Your task to perform on an android device: turn on bluetooth scan Image 0: 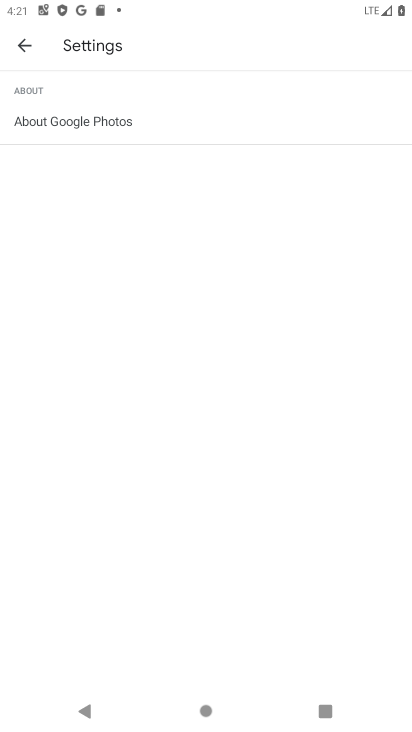
Step 0: press home button
Your task to perform on an android device: turn on bluetooth scan Image 1: 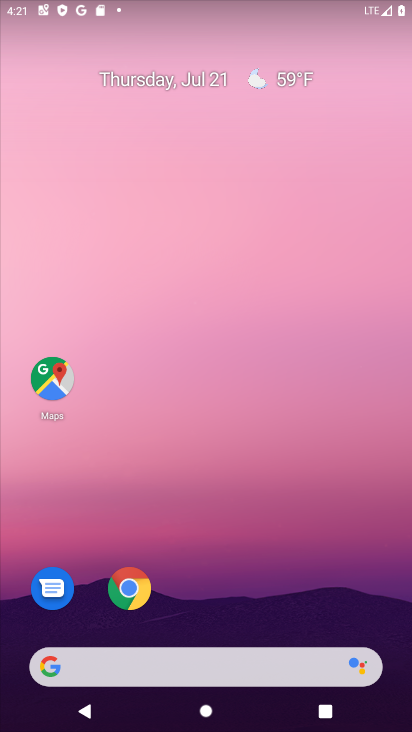
Step 1: drag from (240, 710) to (248, 164)
Your task to perform on an android device: turn on bluetooth scan Image 2: 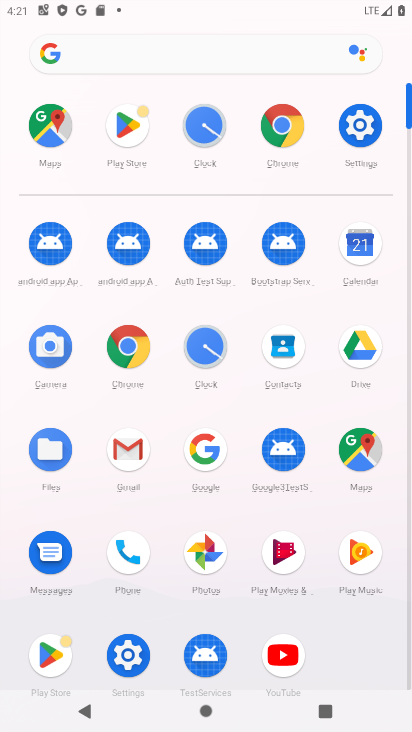
Step 2: click (126, 657)
Your task to perform on an android device: turn on bluetooth scan Image 3: 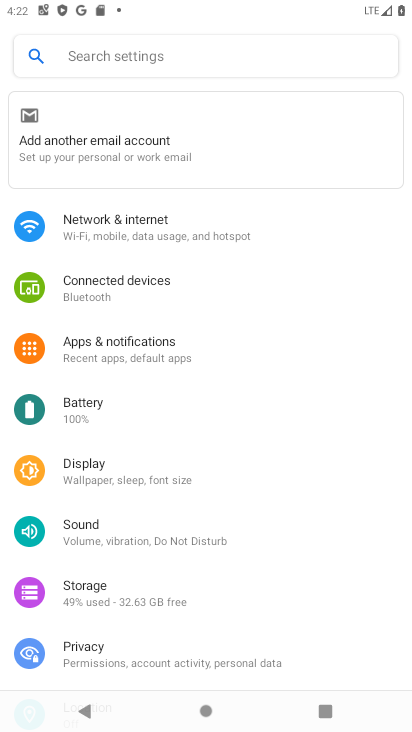
Step 3: drag from (101, 641) to (103, 316)
Your task to perform on an android device: turn on bluetooth scan Image 4: 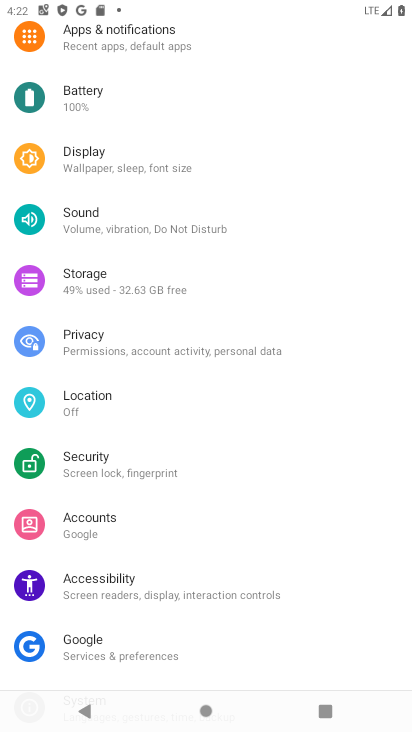
Step 4: click (95, 391)
Your task to perform on an android device: turn on bluetooth scan Image 5: 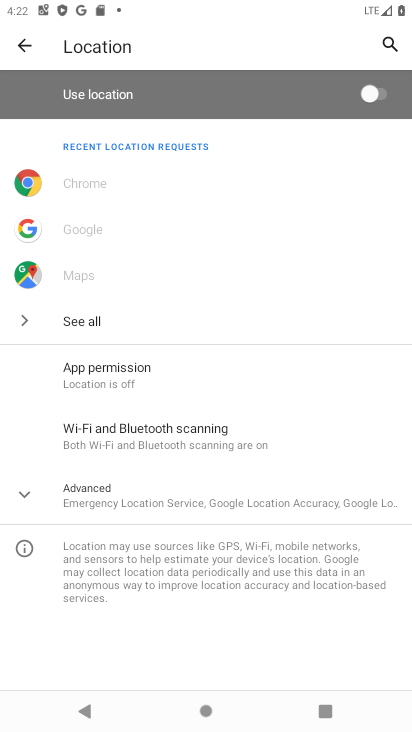
Step 5: click (124, 438)
Your task to perform on an android device: turn on bluetooth scan Image 6: 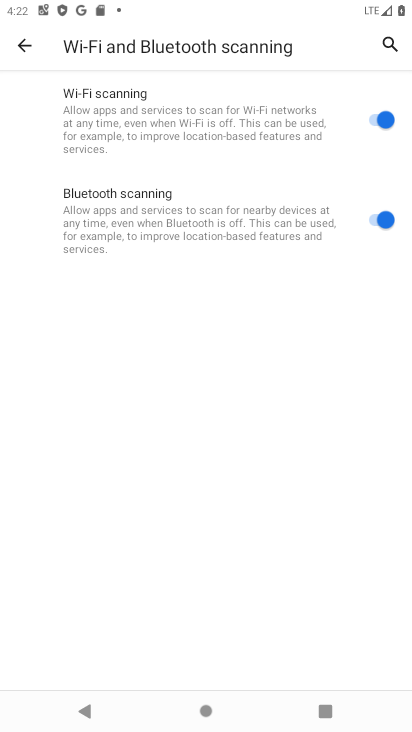
Step 6: task complete